Your task to perform on an android device: open chrome and create a bookmark for the current page Image 0: 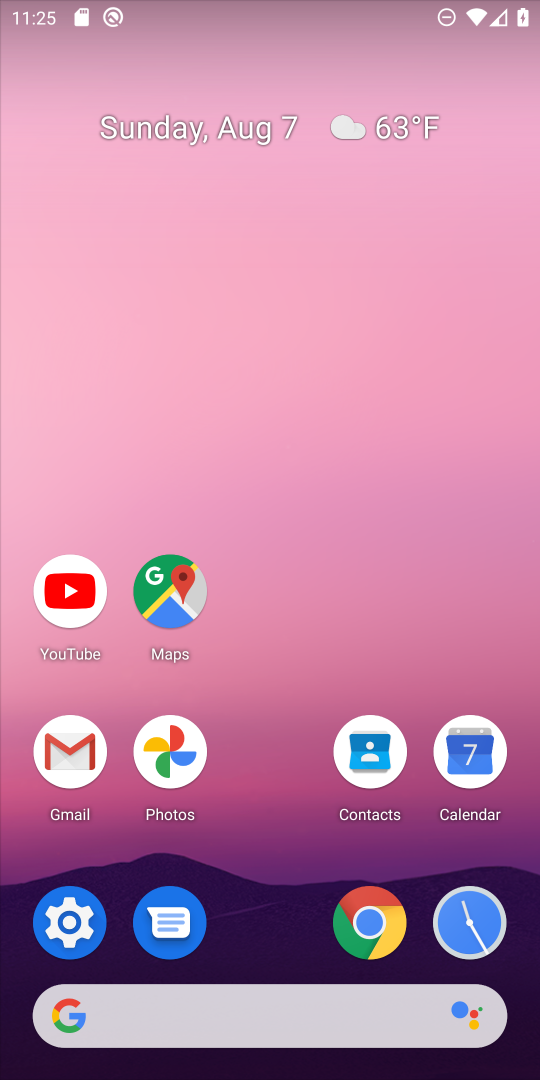
Step 0: press home button
Your task to perform on an android device: open chrome and create a bookmark for the current page Image 1: 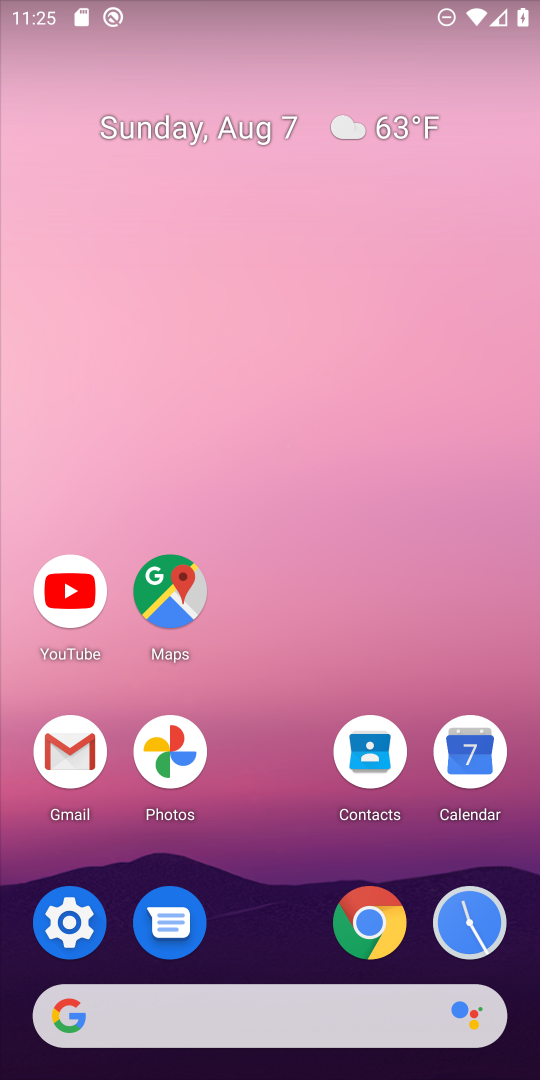
Step 1: click (364, 923)
Your task to perform on an android device: open chrome and create a bookmark for the current page Image 2: 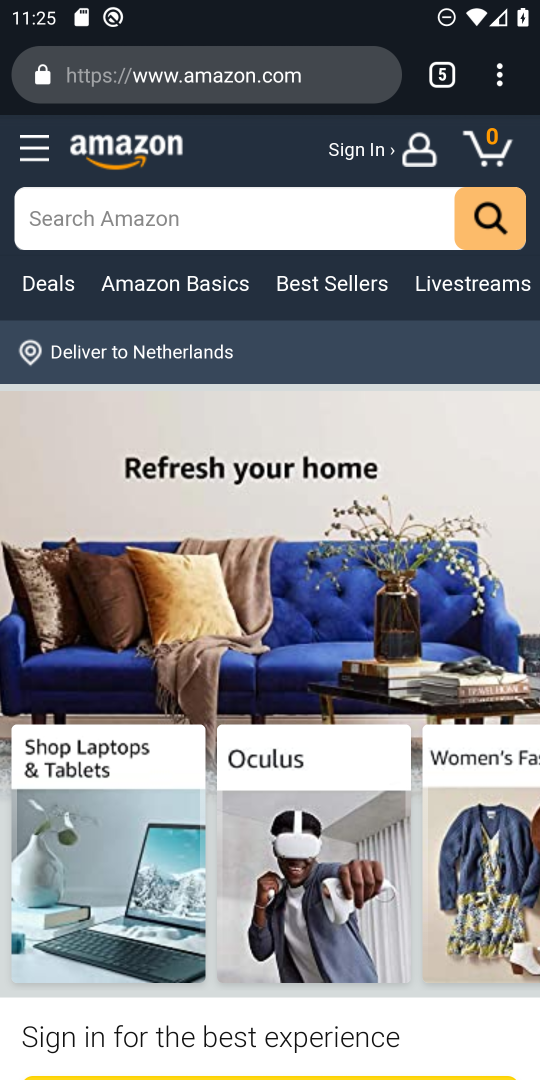
Step 2: click (509, 71)
Your task to perform on an android device: open chrome and create a bookmark for the current page Image 3: 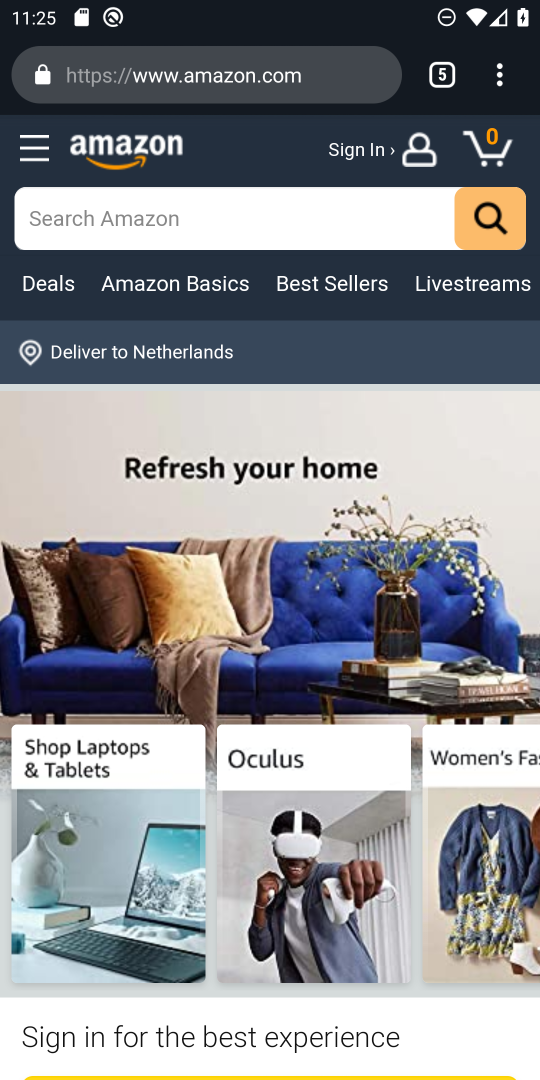
Step 3: click (510, 82)
Your task to perform on an android device: open chrome and create a bookmark for the current page Image 4: 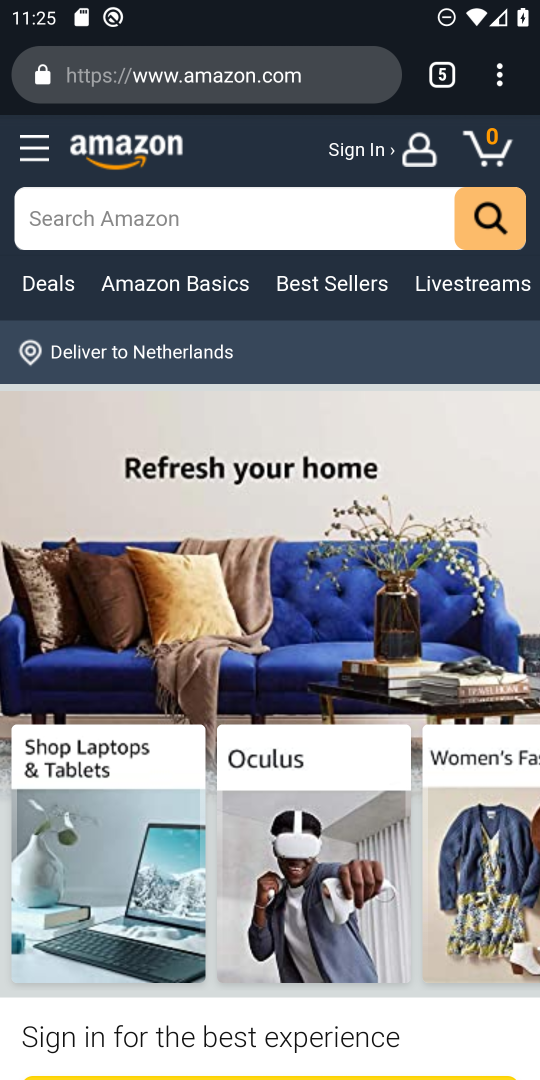
Step 4: click (502, 79)
Your task to perform on an android device: open chrome and create a bookmark for the current page Image 5: 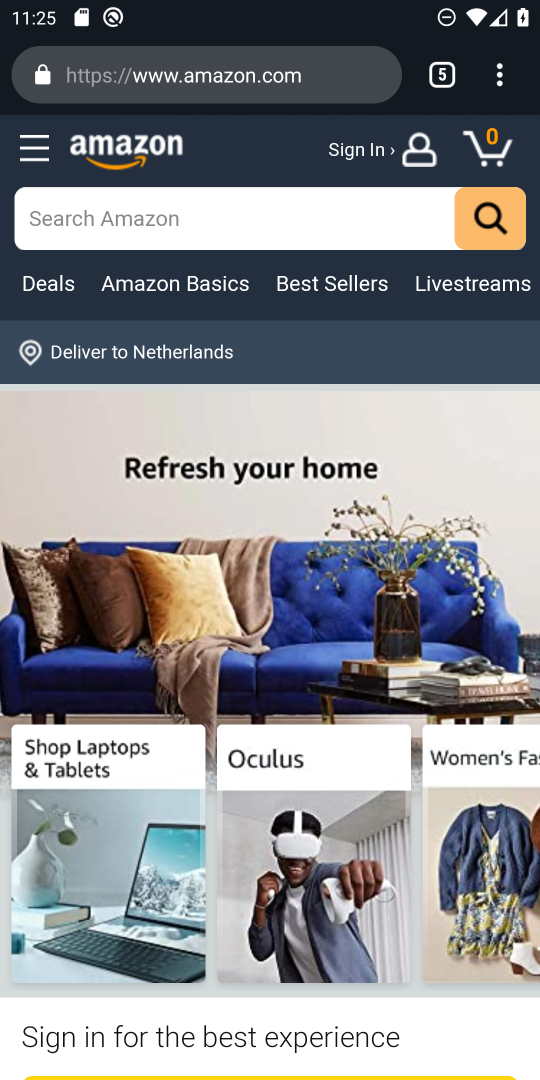
Step 5: click (472, 72)
Your task to perform on an android device: open chrome and create a bookmark for the current page Image 6: 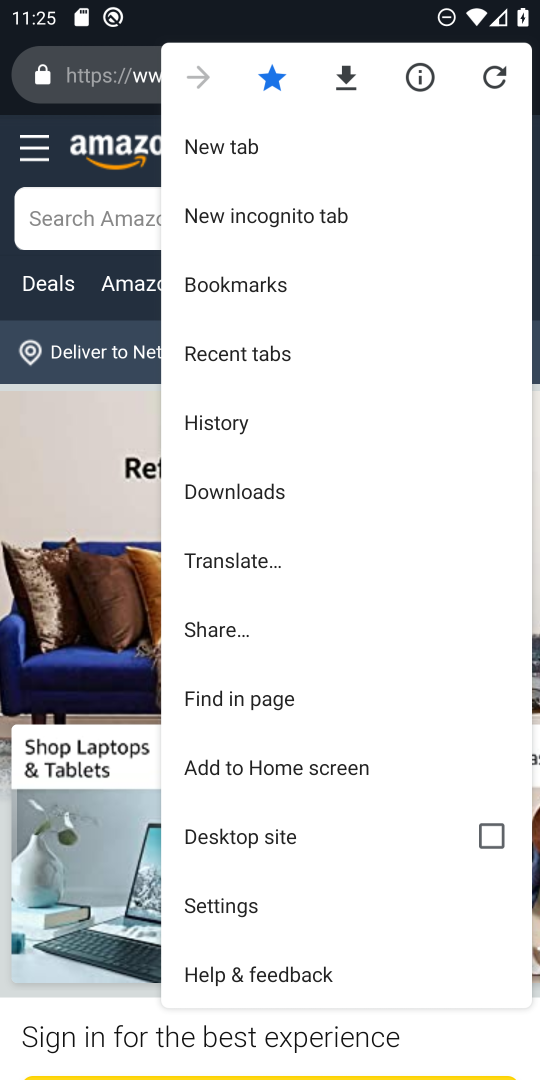
Step 6: task complete